Your task to perform on an android device: Do I have any events this weekend? Image 0: 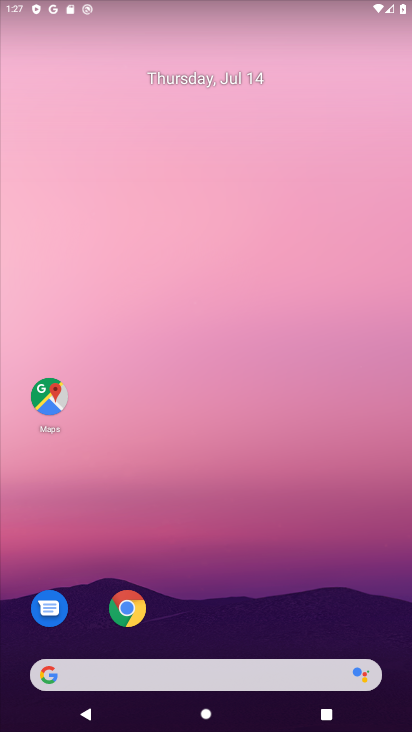
Step 0: drag from (268, 697) to (155, 215)
Your task to perform on an android device: Do I have any events this weekend? Image 1: 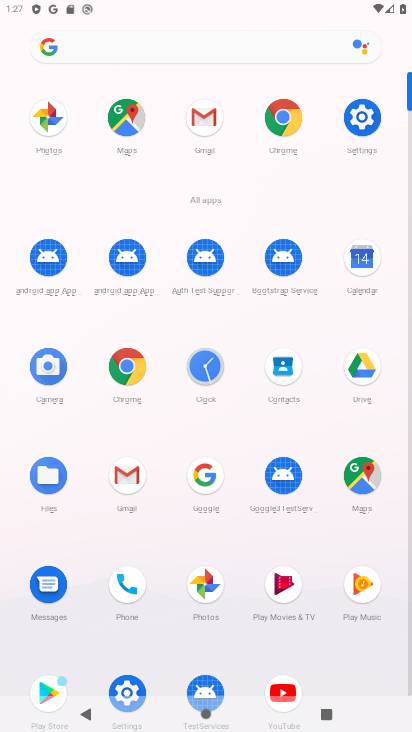
Step 1: click (362, 259)
Your task to perform on an android device: Do I have any events this weekend? Image 2: 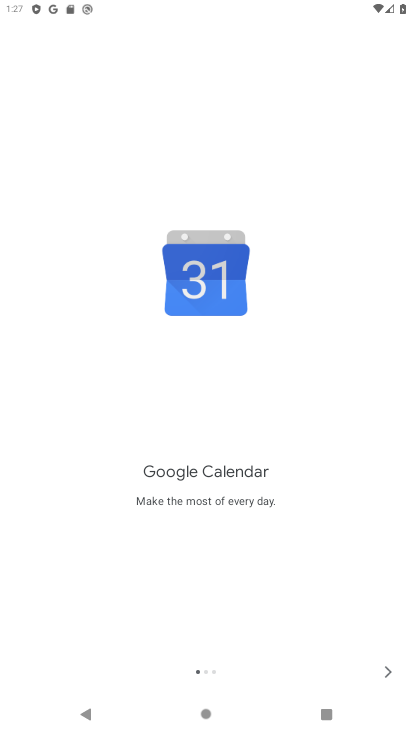
Step 2: click (384, 657)
Your task to perform on an android device: Do I have any events this weekend? Image 3: 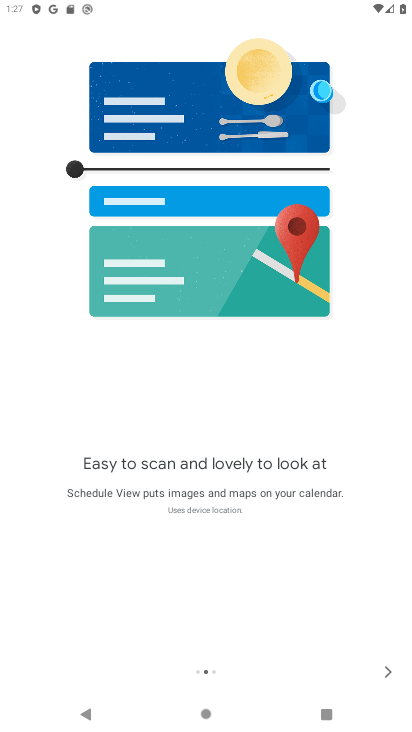
Step 3: click (393, 673)
Your task to perform on an android device: Do I have any events this weekend? Image 4: 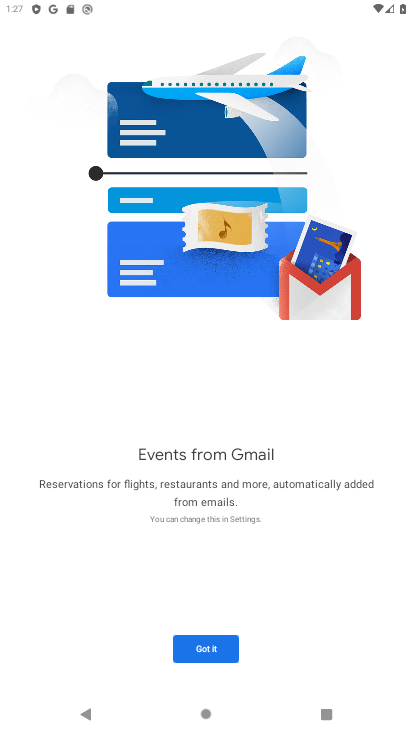
Step 4: click (223, 654)
Your task to perform on an android device: Do I have any events this weekend? Image 5: 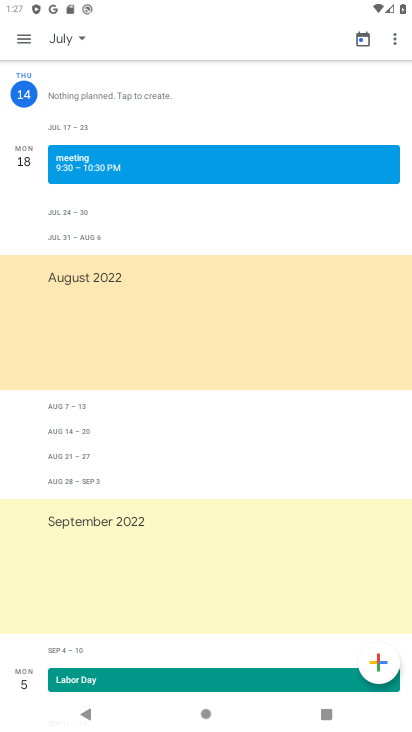
Step 5: click (20, 40)
Your task to perform on an android device: Do I have any events this weekend? Image 6: 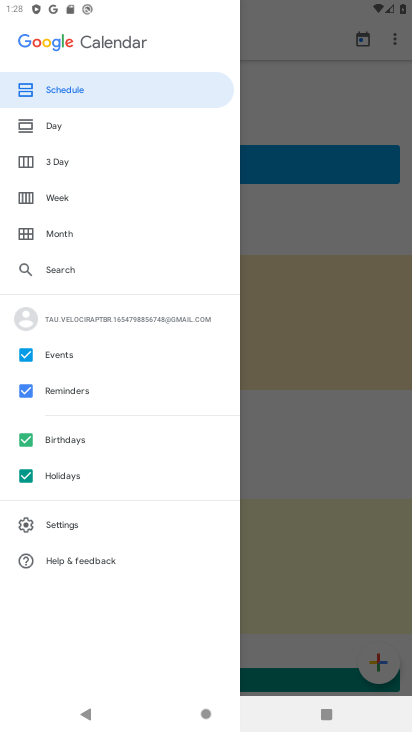
Step 6: click (60, 203)
Your task to perform on an android device: Do I have any events this weekend? Image 7: 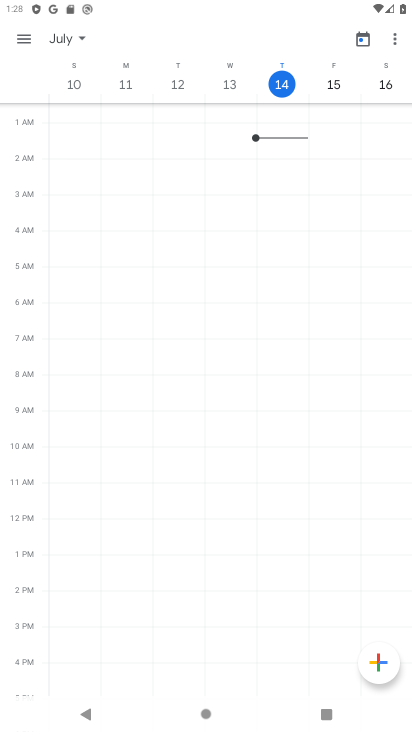
Step 7: task complete